Your task to perform on an android device: choose inbox layout in the gmail app Image 0: 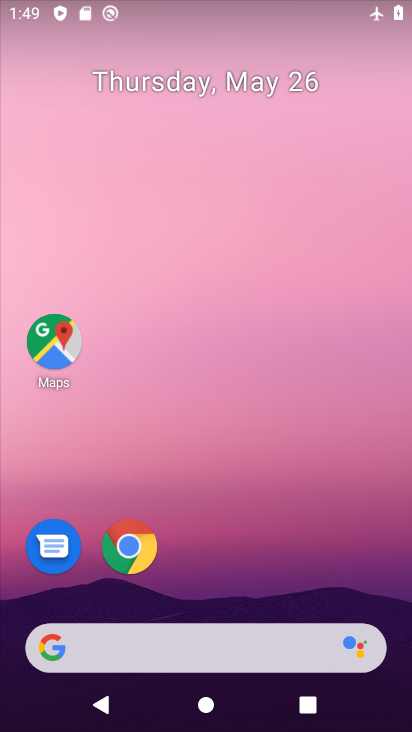
Step 0: drag from (208, 576) to (251, 116)
Your task to perform on an android device: choose inbox layout in the gmail app Image 1: 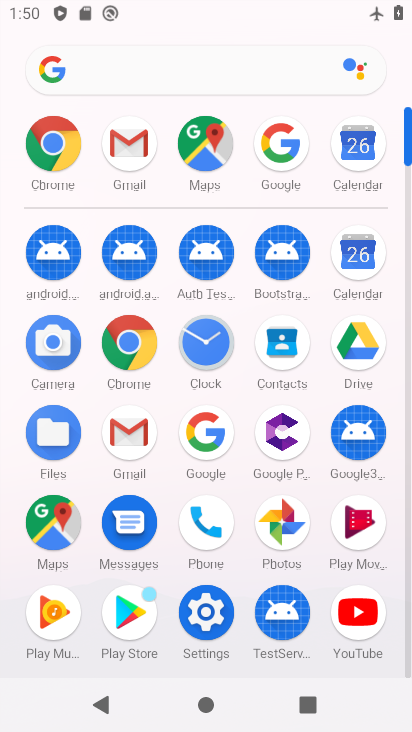
Step 1: click (130, 429)
Your task to perform on an android device: choose inbox layout in the gmail app Image 2: 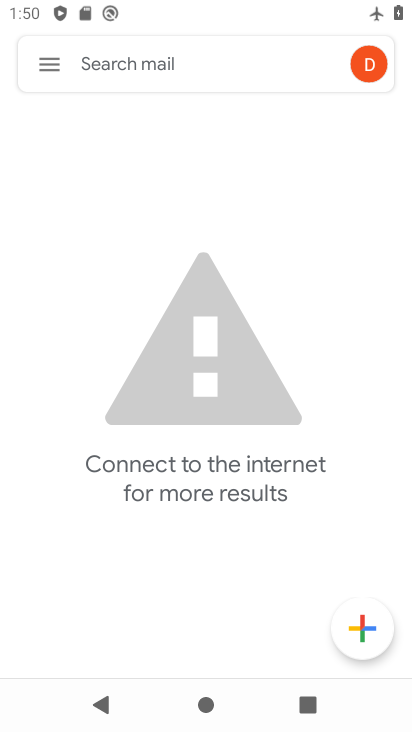
Step 2: click (60, 73)
Your task to perform on an android device: choose inbox layout in the gmail app Image 3: 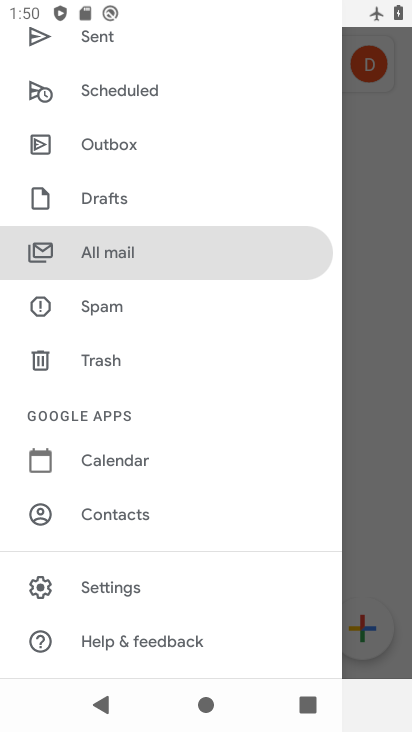
Step 3: click (157, 591)
Your task to perform on an android device: choose inbox layout in the gmail app Image 4: 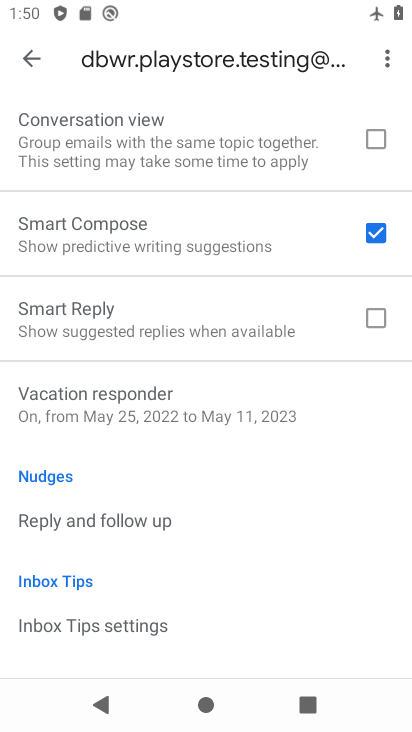
Step 4: drag from (191, 151) to (234, 665)
Your task to perform on an android device: choose inbox layout in the gmail app Image 5: 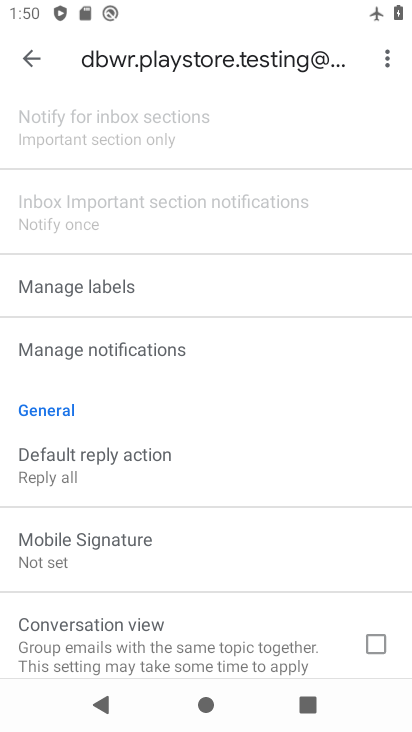
Step 5: drag from (200, 211) to (236, 573)
Your task to perform on an android device: choose inbox layout in the gmail app Image 6: 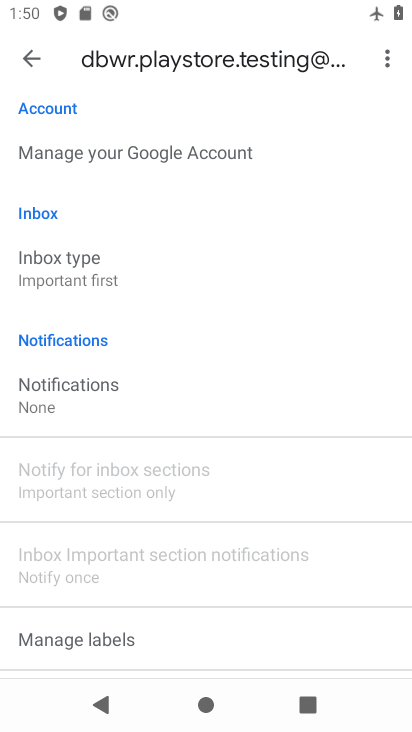
Step 6: click (106, 269)
Your task to perform on an android device: choose inbox layout in the gmail app Image 7: 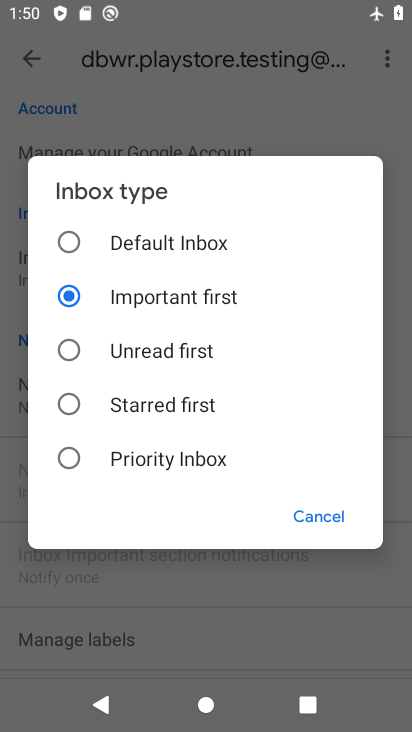
Step 7: click (70, 243)
Your task to perform on an android device: choose inbox layout in the gmail app Image 8: 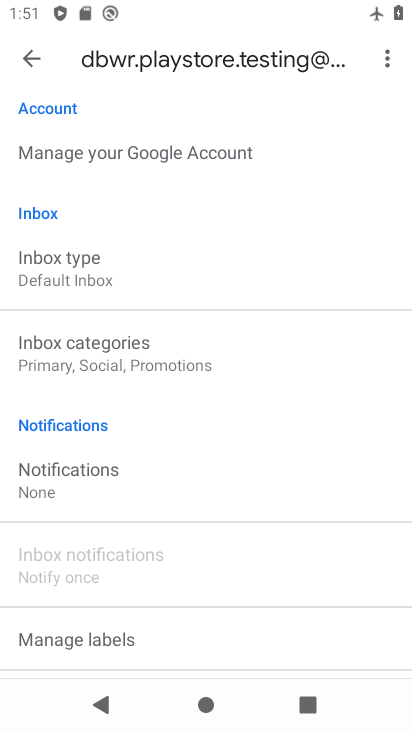
Step 8: task complete